Your task to perform on an android device: open the mobile data screen to see how much data has been used Image 0: 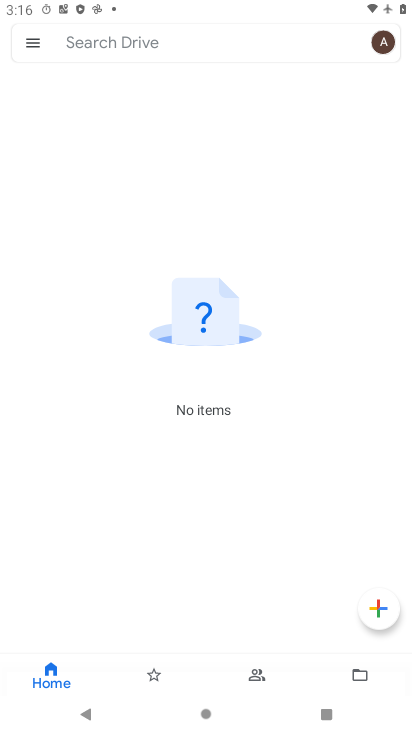
Step 0: press home button
Your task to perform on an android device: open the mobile data screen to see how much data has been used Image 1: 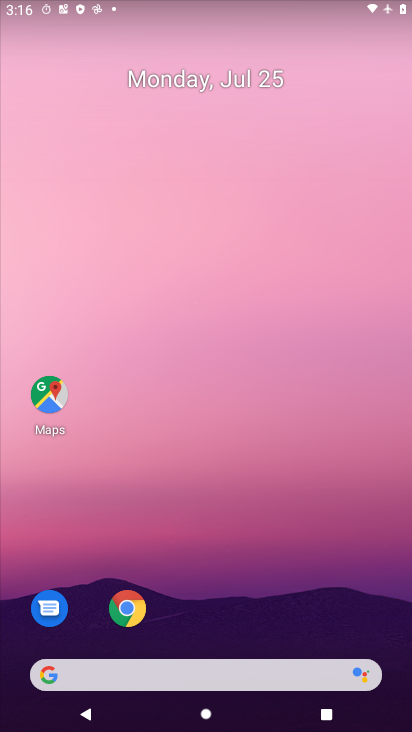
Step 1: drag from (188, 643) to (229, 31)
Your task to perform on an android device: open the mobile data screen to see how much data has been used Image 2: 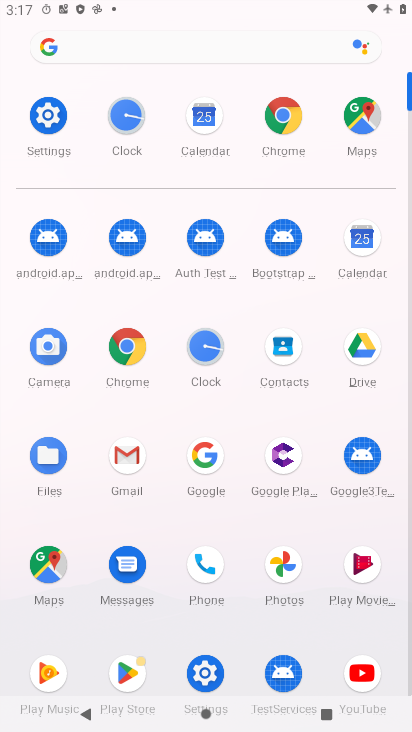
Step 2: click (55, 107)
Your task to perform on an android device: open the mobile data screen to see how much data has been used Image 3: 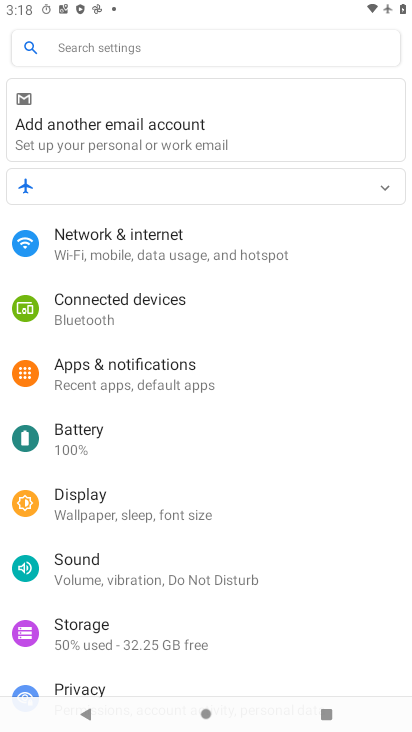
Step 3: click (163, 239)
Your task to perform on an android device: open the mobile data screen to see how much data has been used Image 4: 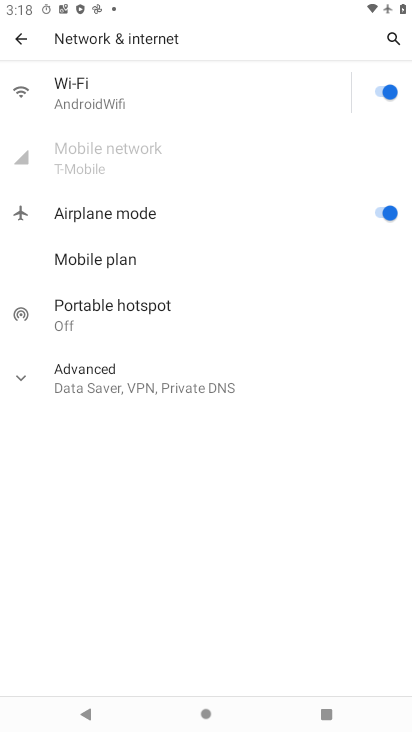
Step 4: click (141, 150)
Your task to perform on an android device: open the mobile data screen to see how much data has been used Image 5: 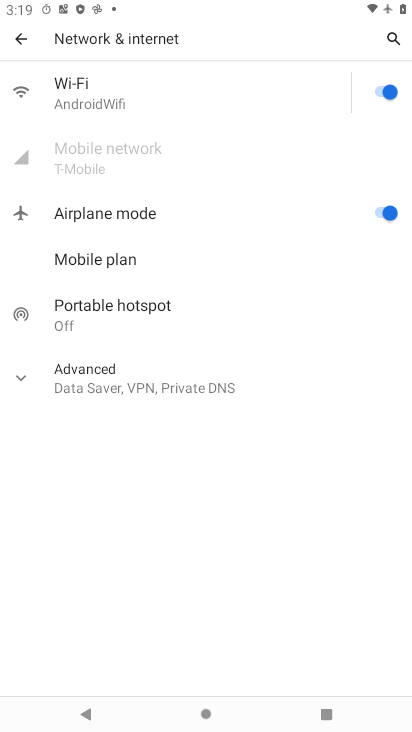
Step 5: task complete